Your task to perform on an android device: check battery use Image 0: 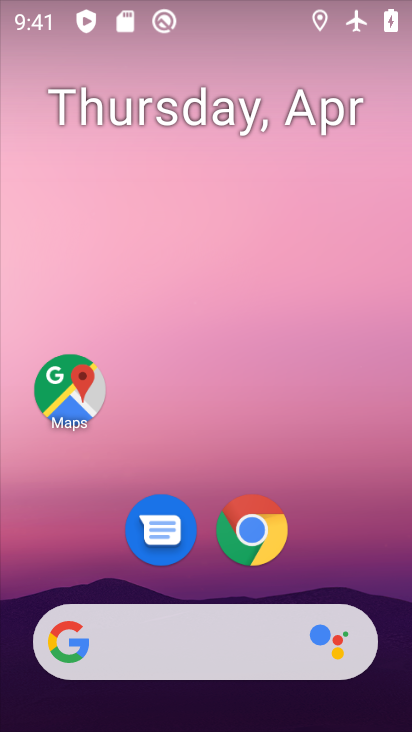
Step 0: drag from (344, 492) to (252, 49)
Your task to perform on an android device: check battery use Image 1: 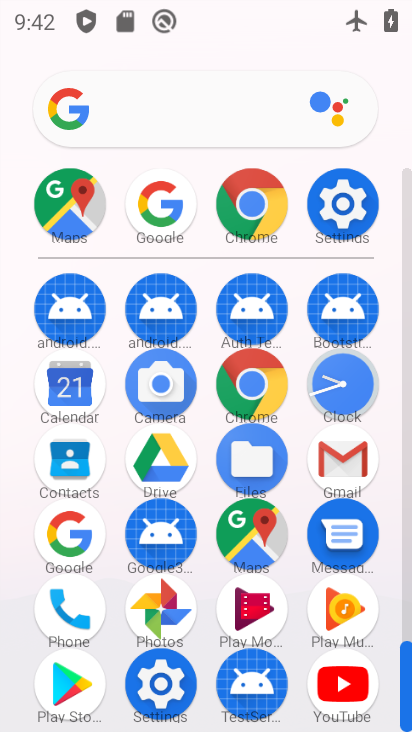
Step 1: click (169, 672)
Your task to perform on an android device: check battery use Image 2: 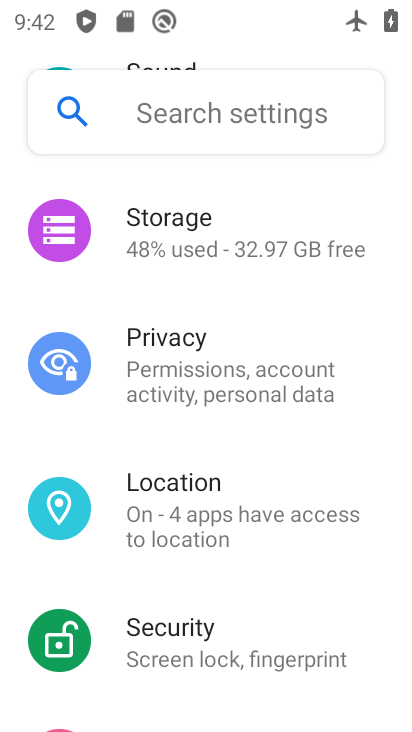
Step 2: drag from (177, 570) to (203, 265)
Your task to perform on an android device: check battery use Image 3: 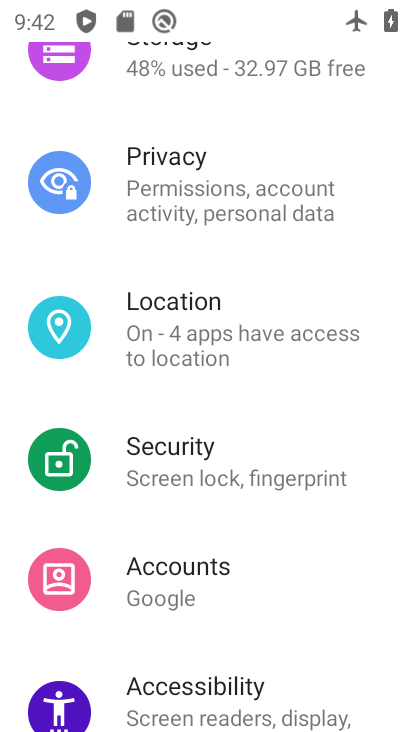
Step 3: drag from (203, 277) to (187, 698)
Your task to perform on an android device: check battery use Image 4: 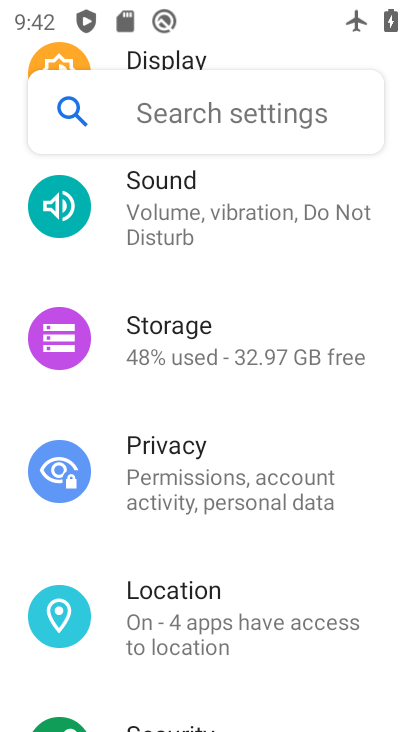
Step 4: drag from (232, 247) to (222, 605)
Your task to perform on an android device: check battery use Image 5: 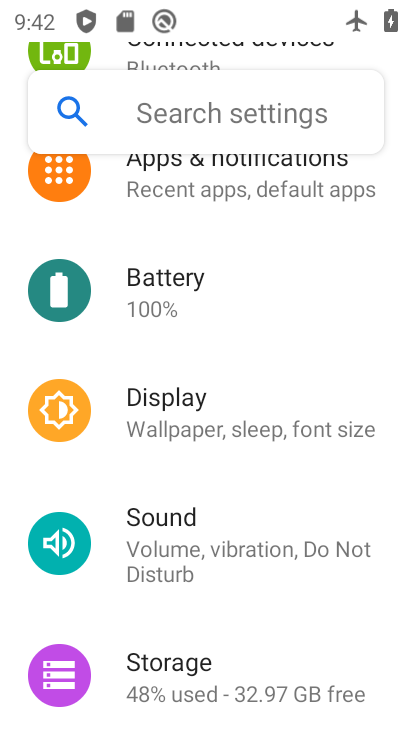
Step 5: click (215, 260)
Your task to perform on an android device: check battery use Image 6: 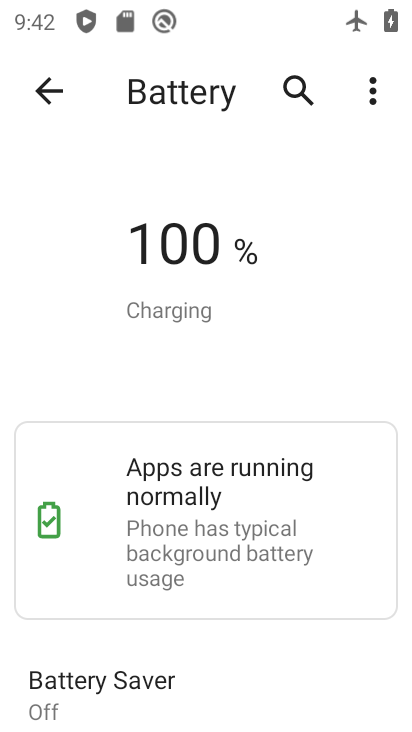
Step 6: click (375, 88)
Your task to perform on an android device: check battery use Image 7: 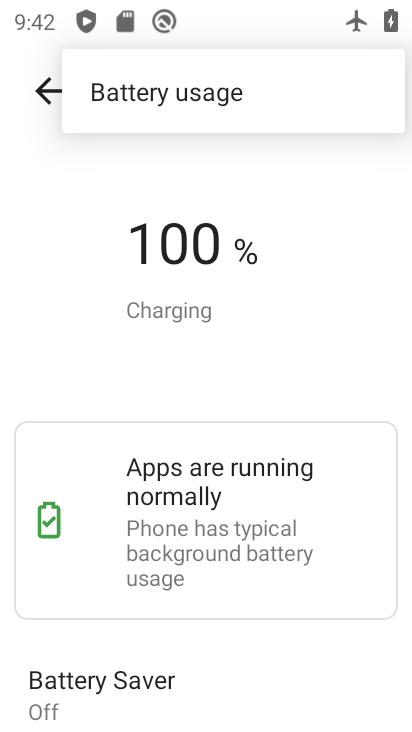
Step 7: click (280, 91)
Your task to perform on an android device: check battery use Image 8: 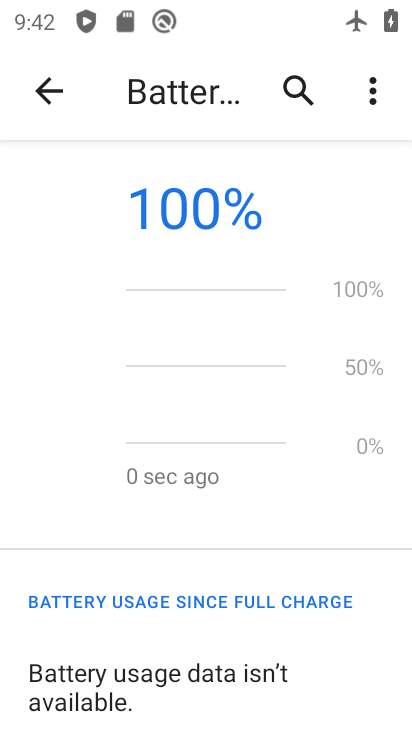
Step 8: task complete